Your task to perform on an android device: set the timer Image 0: 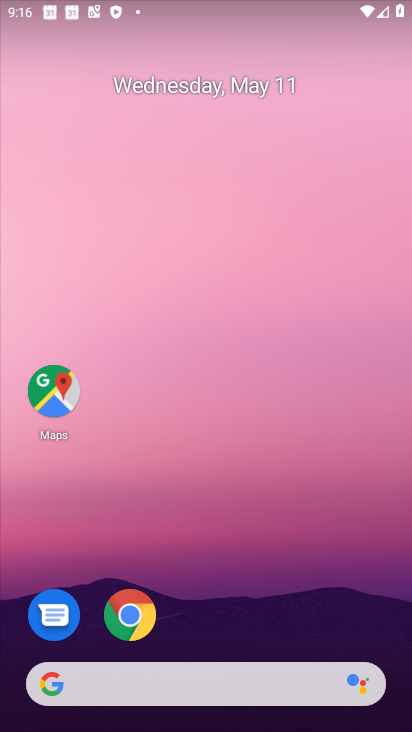
Step 0: press home button
Your task to perform on an android device: set the timer Image 1: 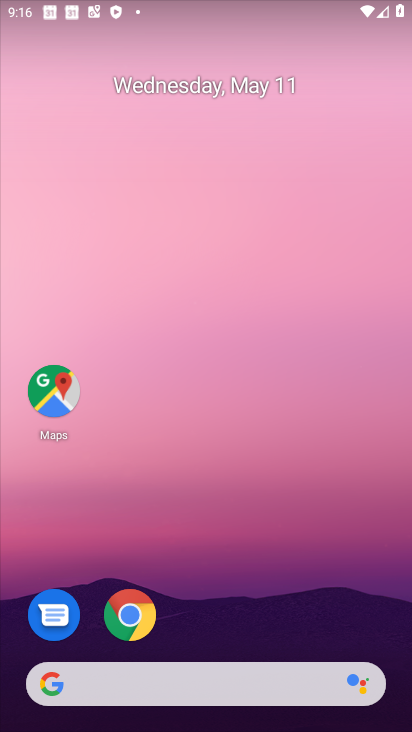
Step 1: drag from (12, 658) to (310, 138)
Your task to perform on an android device: set the timer Image 2: 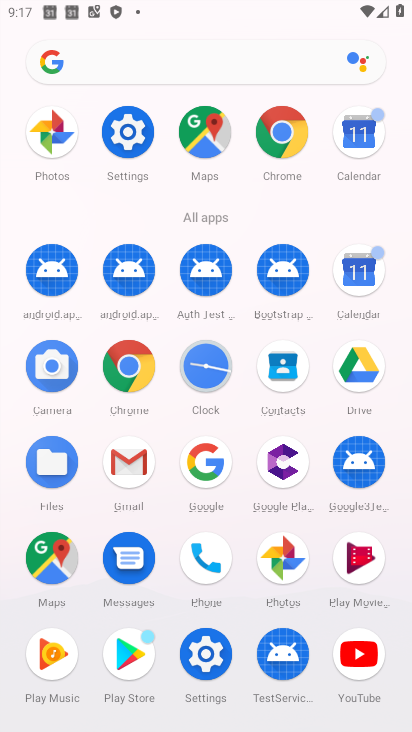
Step 2: click (219, 376)
Your task to perform on an android device: set the timer Image 3: 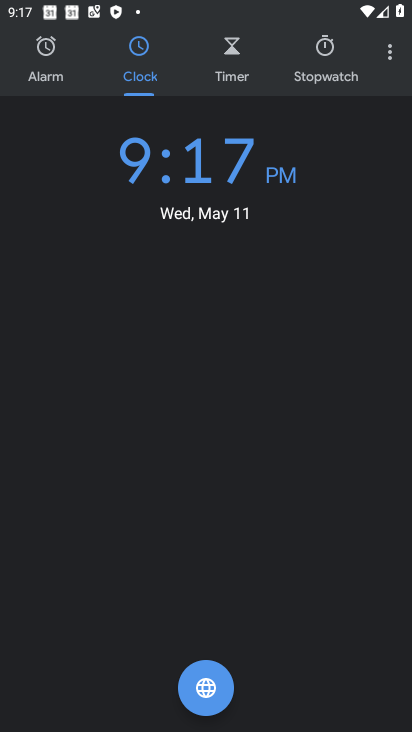
Step 3: click (222, 40)
Your task to perform on an android device: set the timer Image 4: 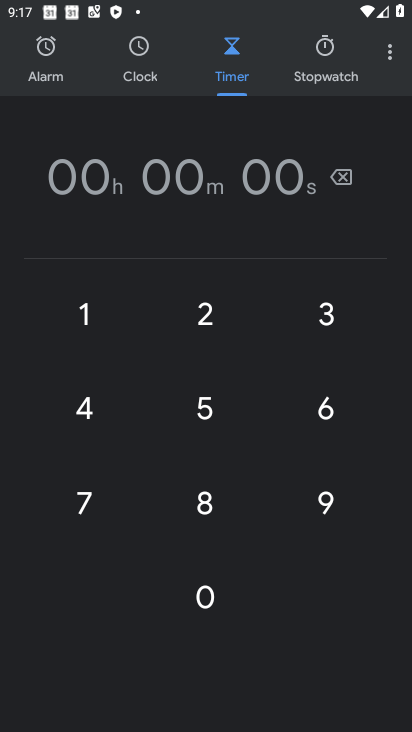
Step 4: click (99, 308)
Your task to perform on an android device: set the timer Image 5: 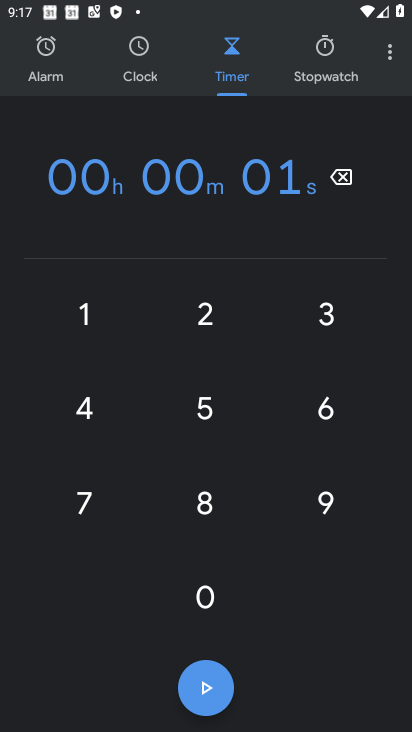
Step 5: click (213, 598)
Your task to perform on an android device: set the timer Image 6: 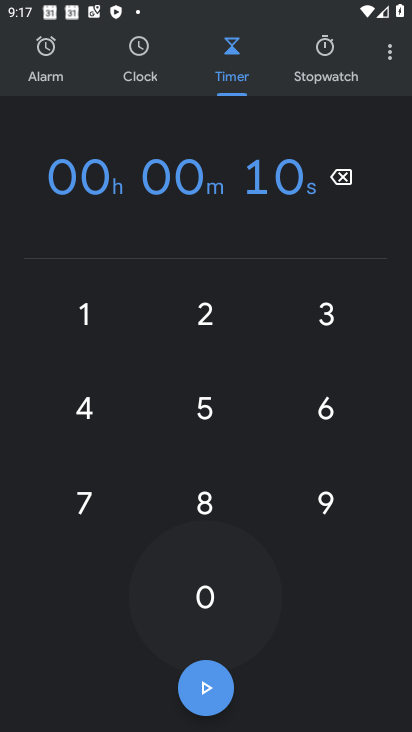
Step 6: click (213, 598)
Your task to perform on an android device: set the timer Image 7: 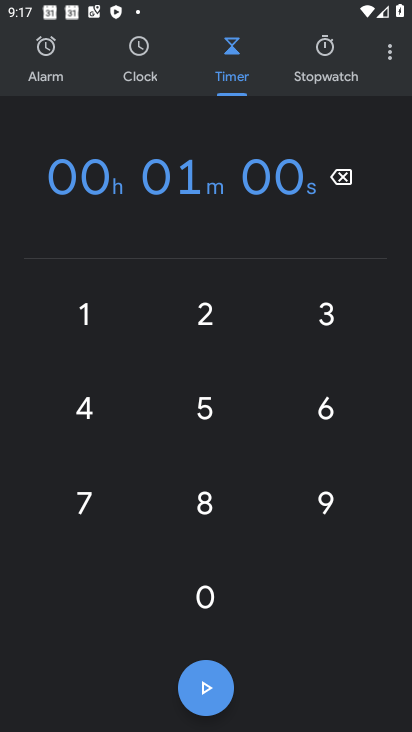
Step 7: click (213, 598)
Your task to perform on an android device: set the timer Image 8: 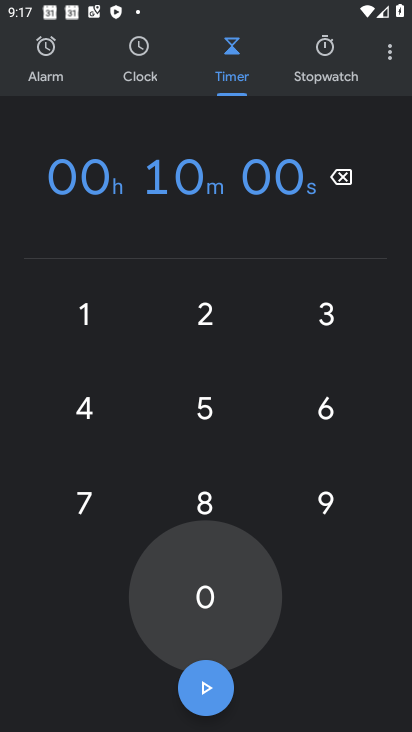
Step 8: click (213, 598)
Your task to perform on an android device: set the timer Image 9: 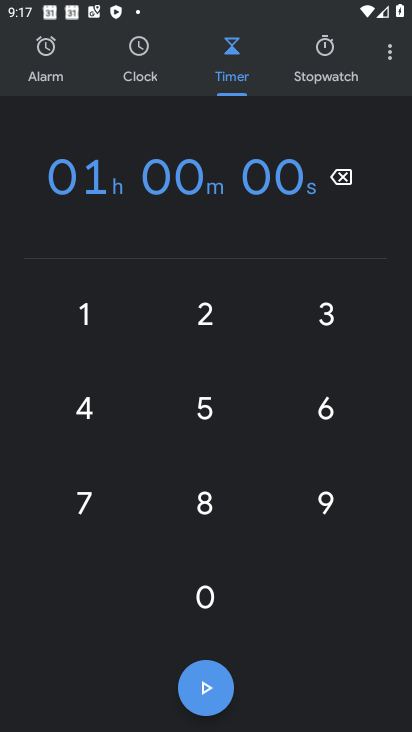
Step 9: click (206, 672)
Your task to perform on an android device: set the timer Image 10: 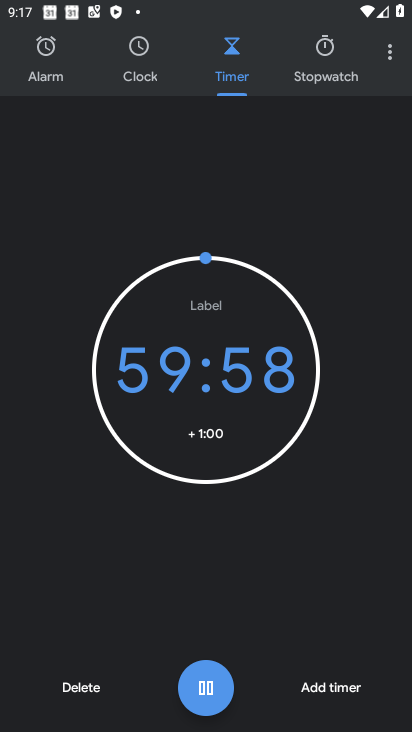
Step 10: task complete